Your task to perform on an android device: toggle data saver in the chrome app Image 0: 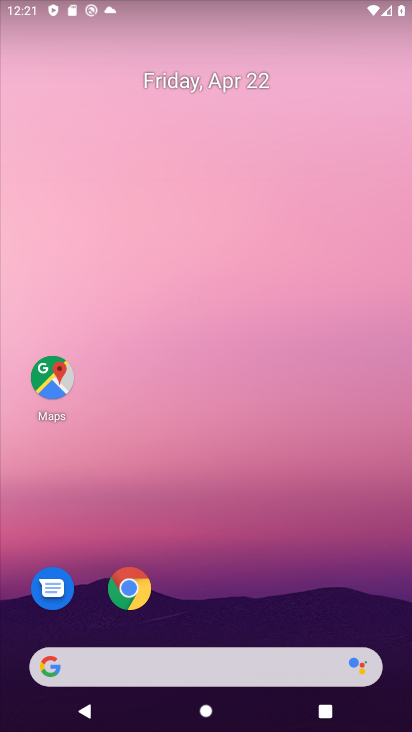
Step 0: click (194, 378)
Your task to perform on an android device: toggle data saver in the chrome app Image 1: 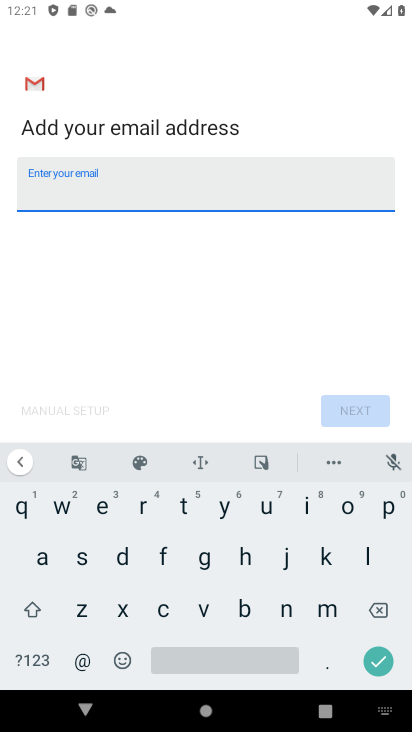
Step 1: press home button
Your task to perform on an android device: toggle data saver in the chrome app Image 2: 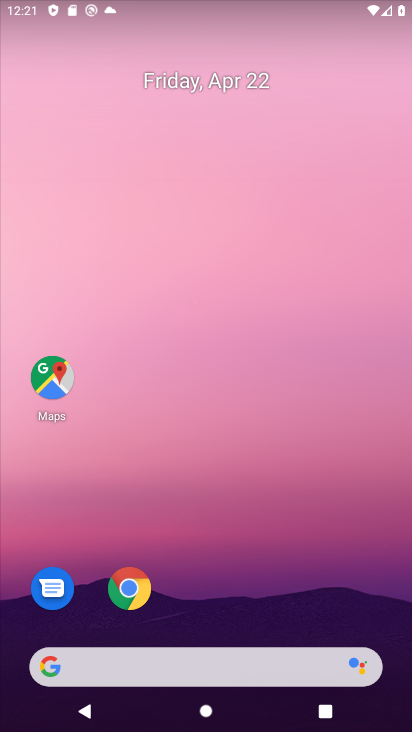
Step 2: drag from (276, 683) to (334, 214)
Your task to perform on an android device: toggle data saver in the chrome app Image 3: 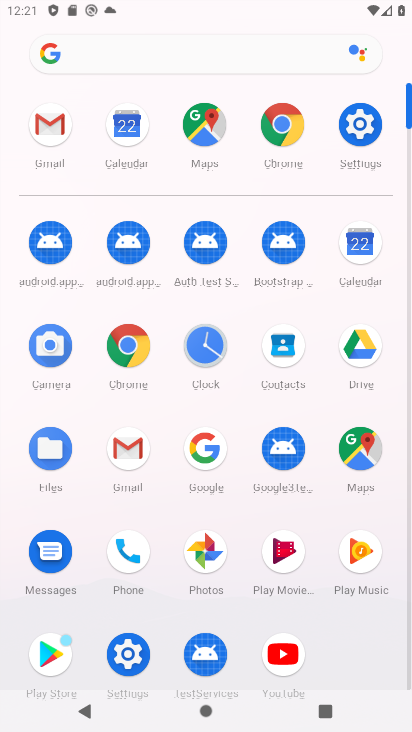
Step 3: click (127, 335)
Your task to perform on an android device: toggle data saver in the chrome app Image 4: 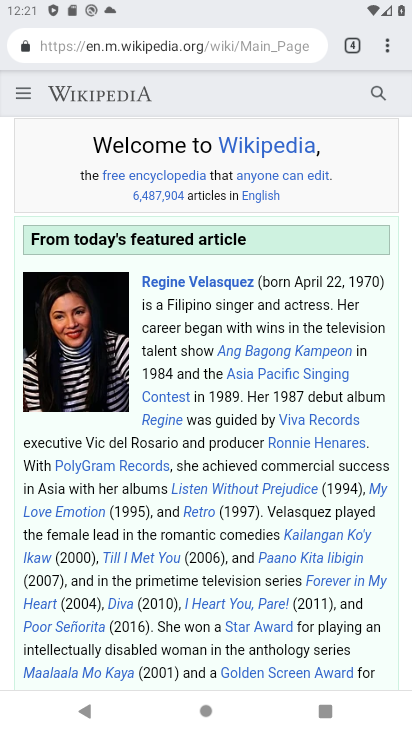
Step 4: click (387, 49)
Your task to perform on an android device: toggle data saver in the chrome app Image 5: 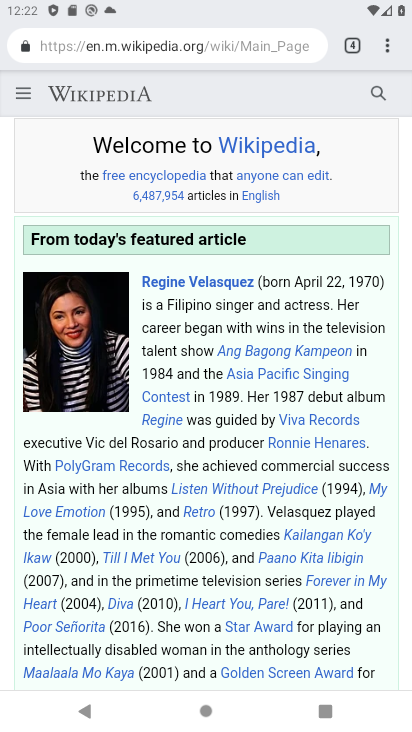
Step 5: click (385, 47)
Your task to perform on an android device: toggle data saver in the chrome app Image 6: 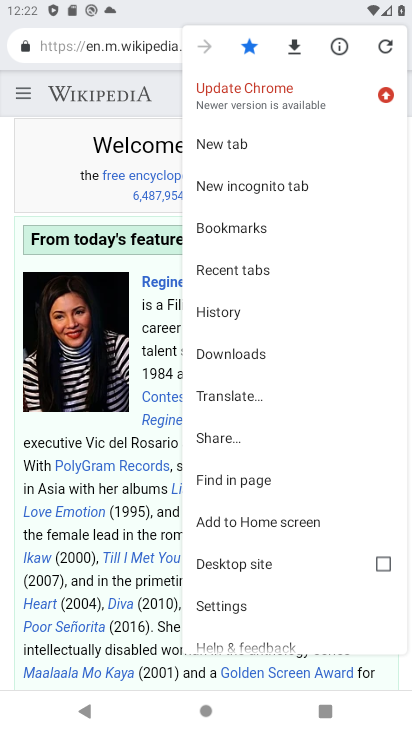
Step 6: click (222, 597)
Your task to perform on an android device: toggle data saver in the chrome app Image 7: 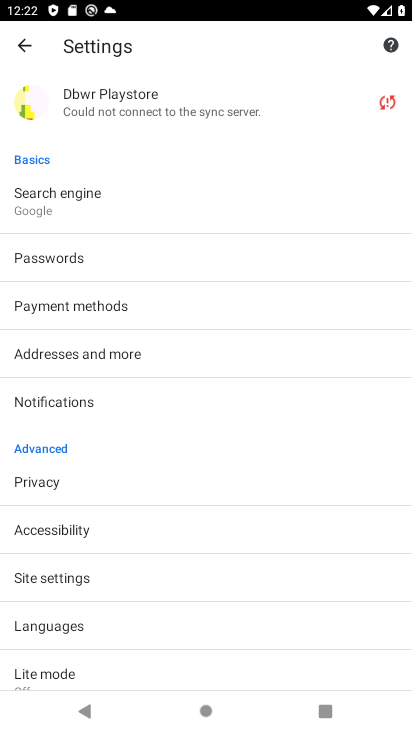
Step 7: click (48, 669)
Your task to perform on an android device: toggle data saver in the chrome app Image 8: 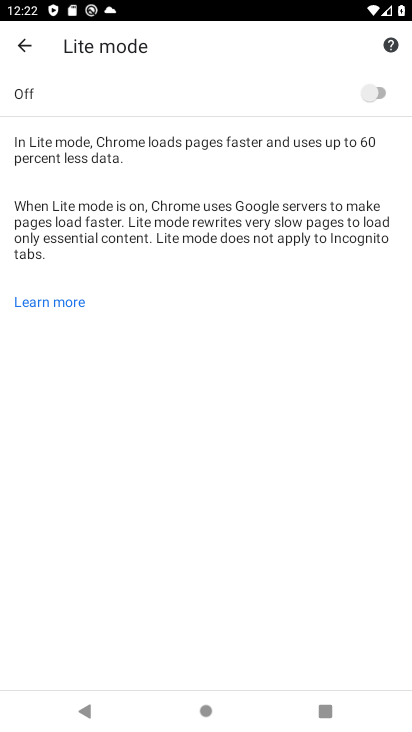
Step 8: click (344, 97)
Your task to perform on an android device: toggle data saver in the chrome app Image 9: 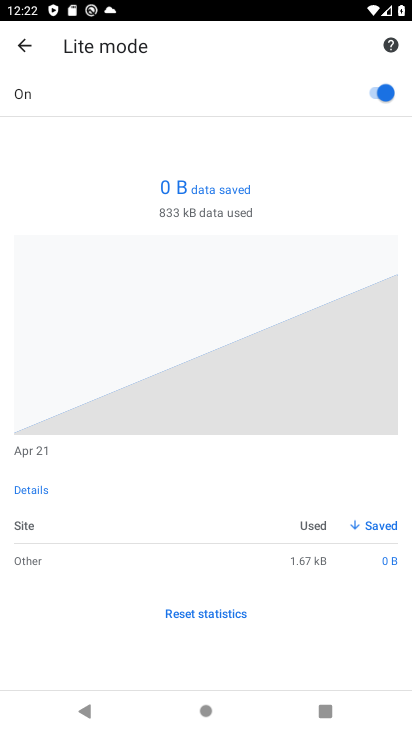
Step 9: task complete